Your task to perform on an android device: change notification settings in the gmail app Image 0: 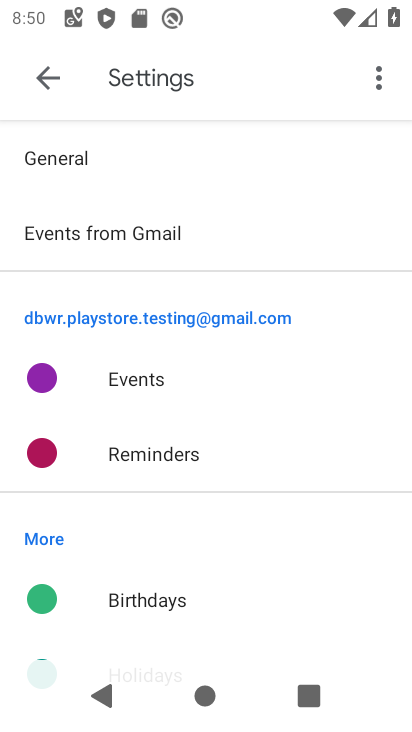
Step 0: press home button
Your task to perform on an android device: change notification settings in the gmail app Image 1: 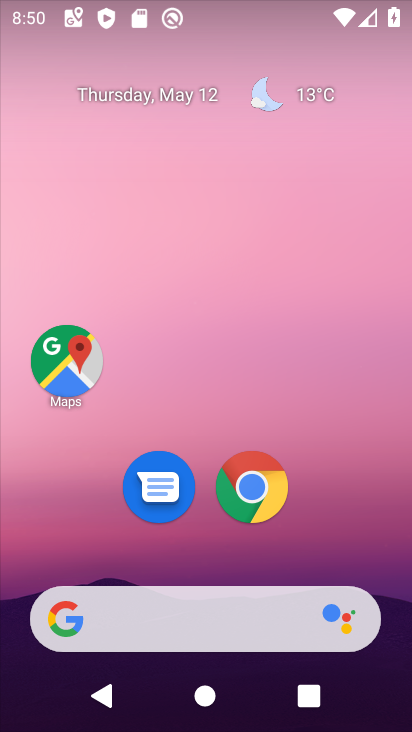
Step 1: drag from (343, 545) to (308, 4)
Your task to perform on an android device: change notification settings in the gmail app Image 2: 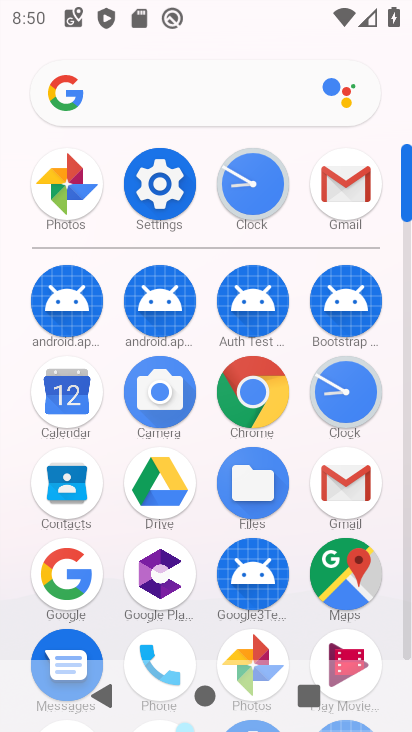
Step 2: click (345, 194)
Your task to perform on an android device: change notification settings in the gmail app Image 3: 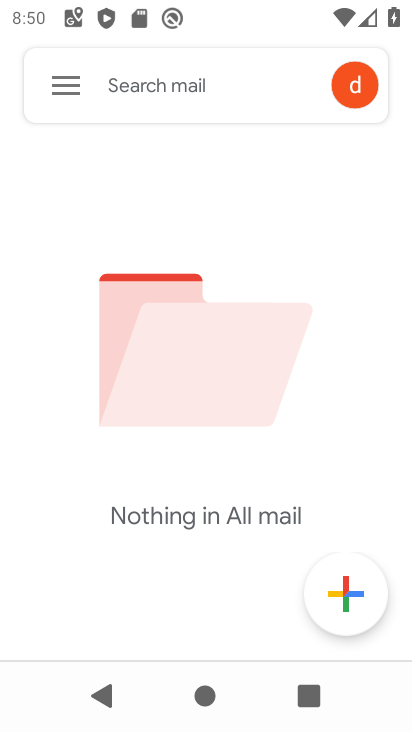
Step 3: click (67, 91)
Your task to perform on an android device: change notification settings in the gmail app Image 4: 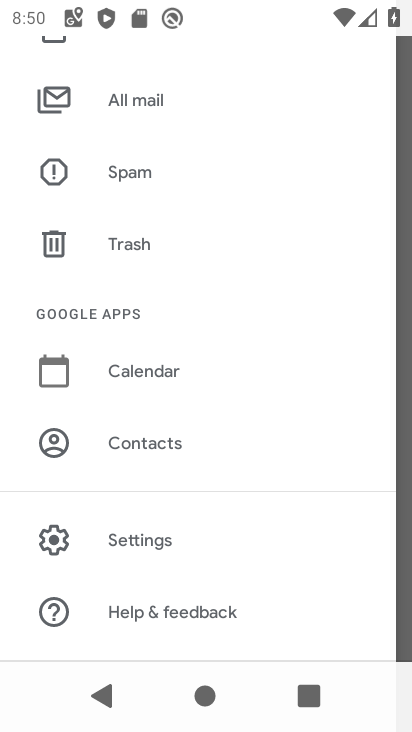
Step 4: click (148, 545)
Your task to perform on an android device: change notification settings in the gmail app Image 5: 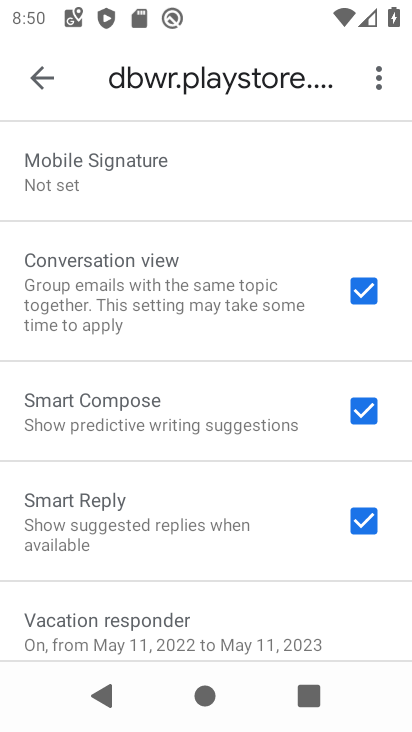
Step 5: click (32, 80)
Your task to perform on an android device: change notification settings in the gmail app Image 6: 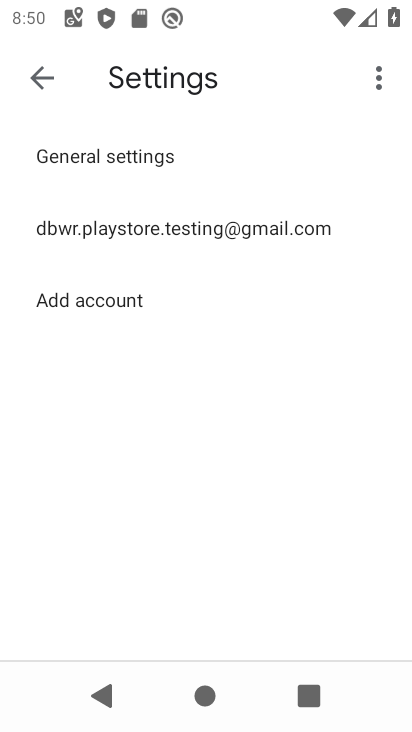
Step 6: click (69, 158)
Your task to perform on an android device: change notification settings in the gmail app Image 7: 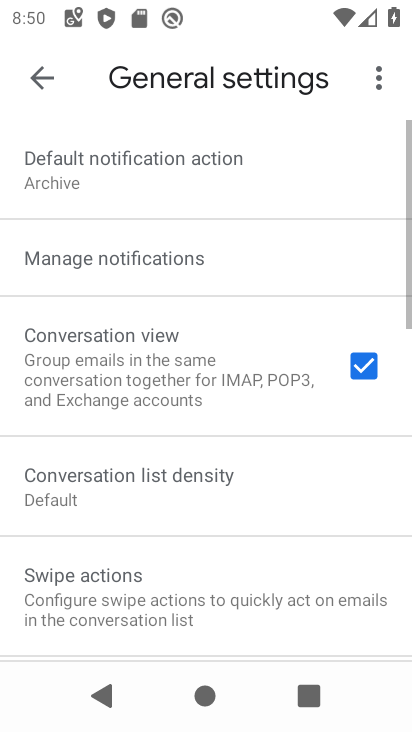
Step 7: click (82, 256)
Your task to perform on an android device: change notification settings in the gmail app Image 8: 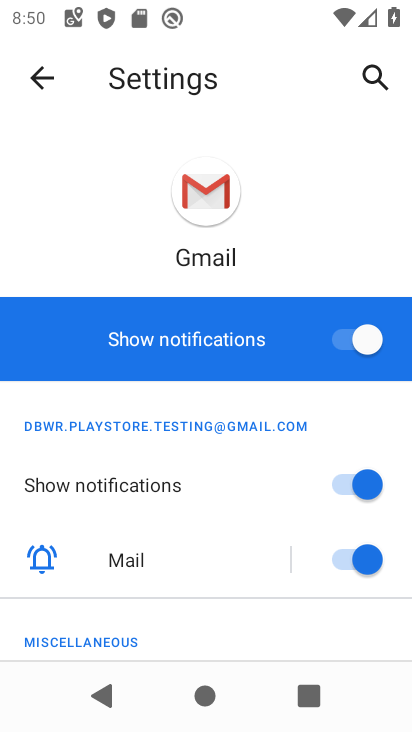
Step 8: click (372, 349)
Your task to perform on an android device: change notification settings in the gmail app Image 9: 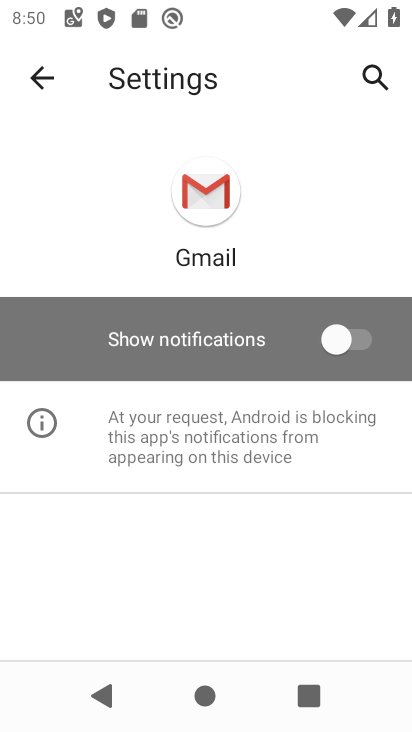
Step 9: task complete